Your task to perform on an android device: Toggle the flashlight Image 0: 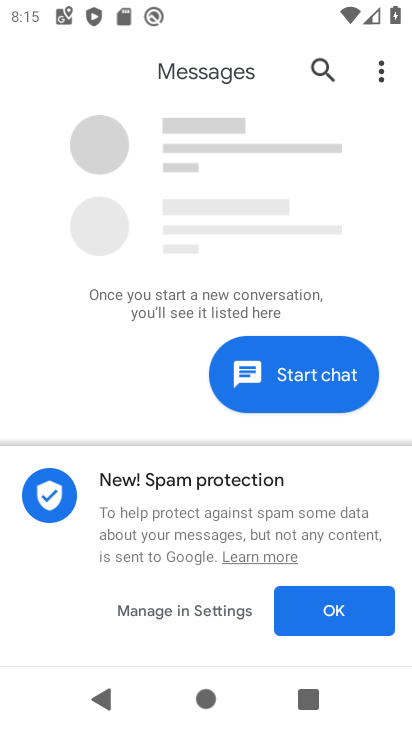
Step 0: press home button
Your task to perform on an android device: Toggle the flashlight Image 1: 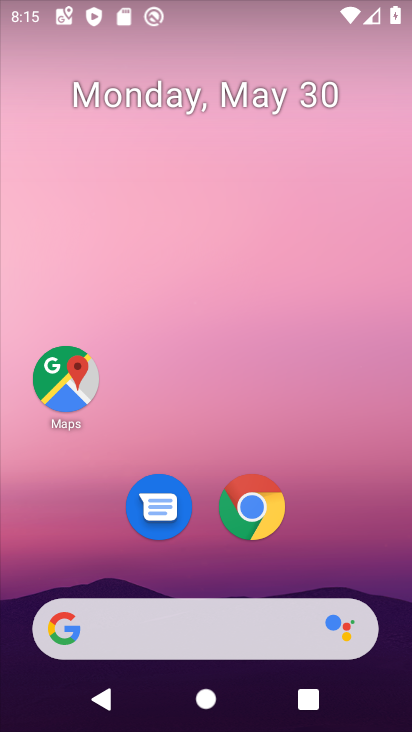
Step 1: drag from (215, 581) to (273, 12)
Your task to perform on an android device: Toggle the flashlight Image 2: 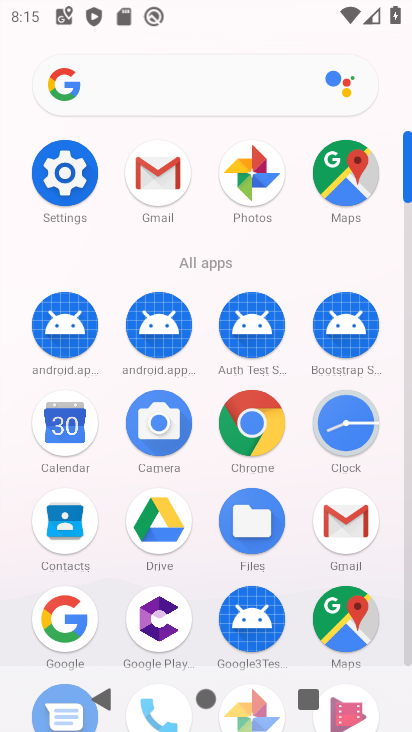
Step 2: click (66, 184)
Your task to perform on an android device: Toggle the flashlight Image 3: 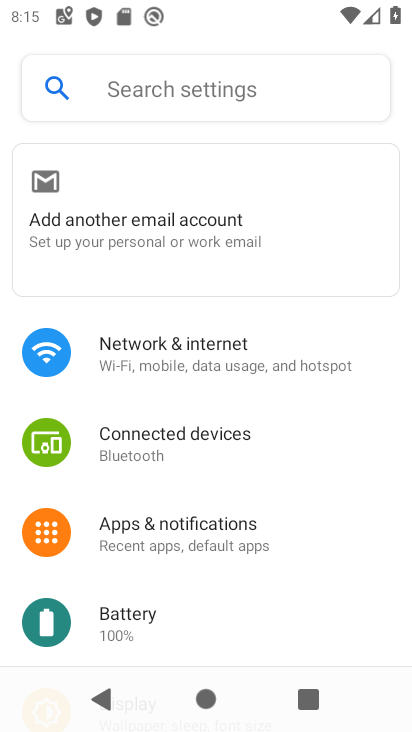
Step 3: click (214, 92)
Your task to perform on an android device: Toggle the flashlight Image 4: 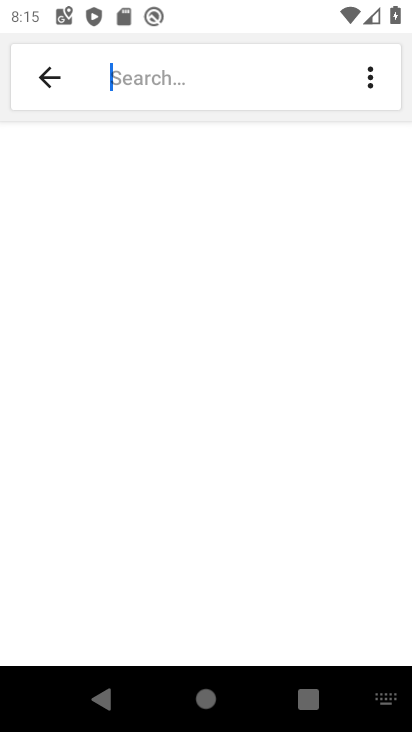
Step 4: type "flashlight"
Your task to perform on an android device: Toggle the flashlight Image 5: 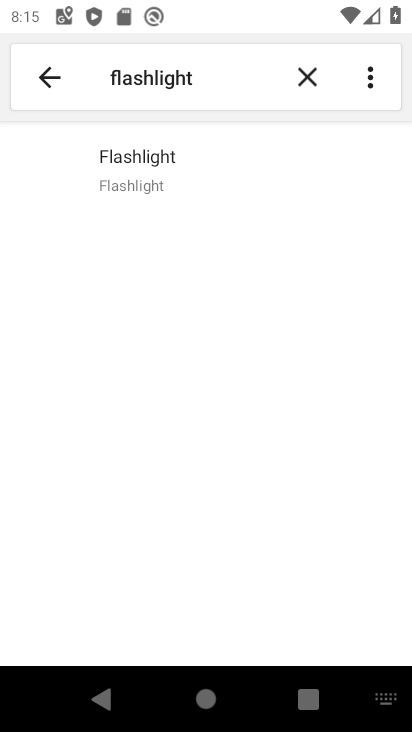
Step 5: click (115, 171)
Your task to perform on an android device: Toggle the flashlight Image 6: 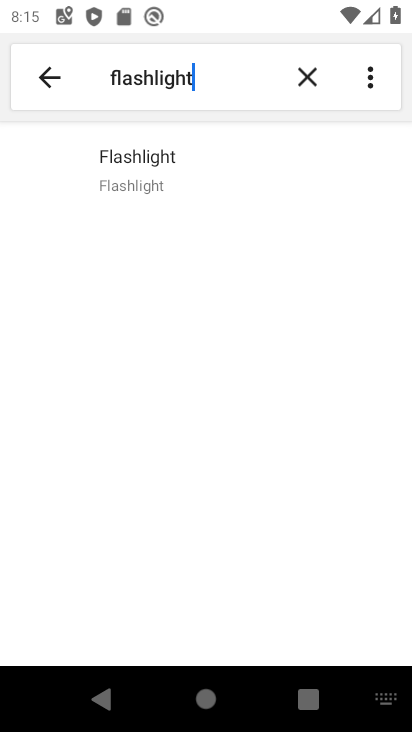
Step 6: click (115, 171)
Your task to perform on an android device: Toggle the flashlight Image 7: 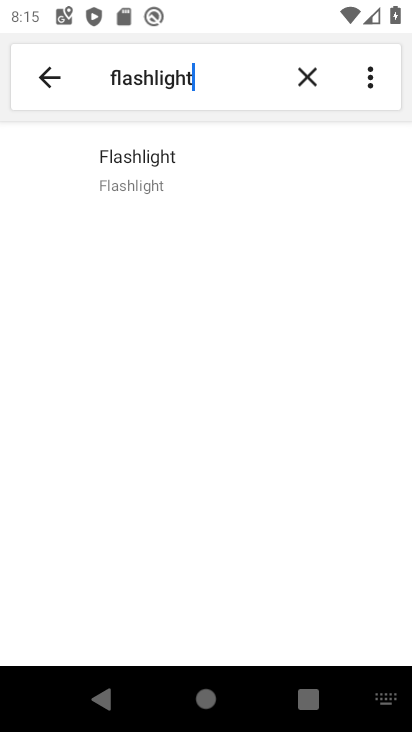
Step 7: task complete